Your task to perform on an android device: Search for alienware aurora on newegg, select the first entry, add it to the cart, then select checkout. Image 0: 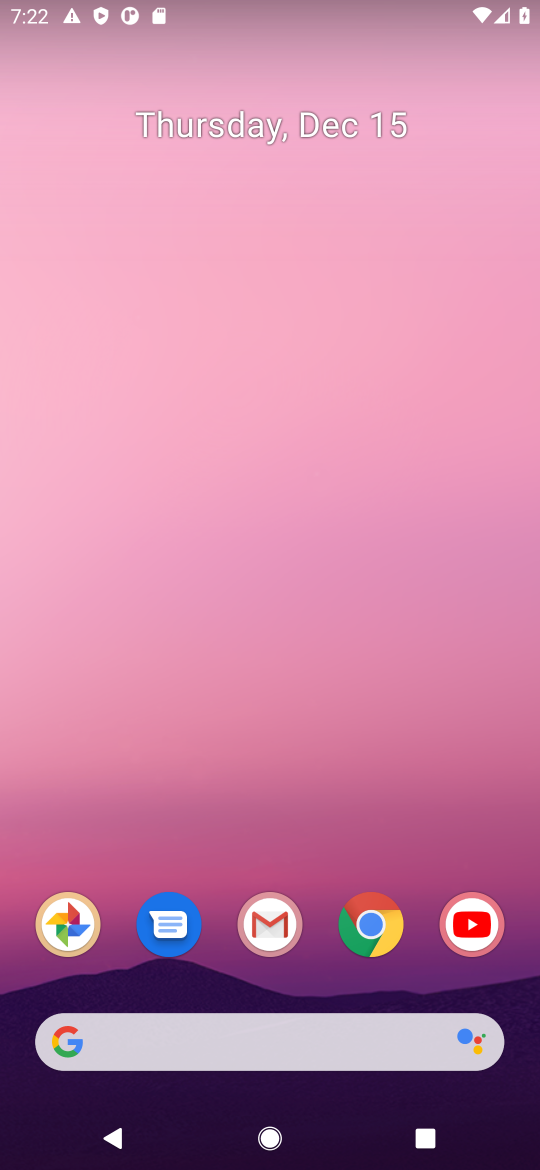
Step 0: click (353, 927)
Your task to perform on an android device: Search for alienware aurora on newegg, select the first entry, add it to the cart, then select checkout. Image 1: 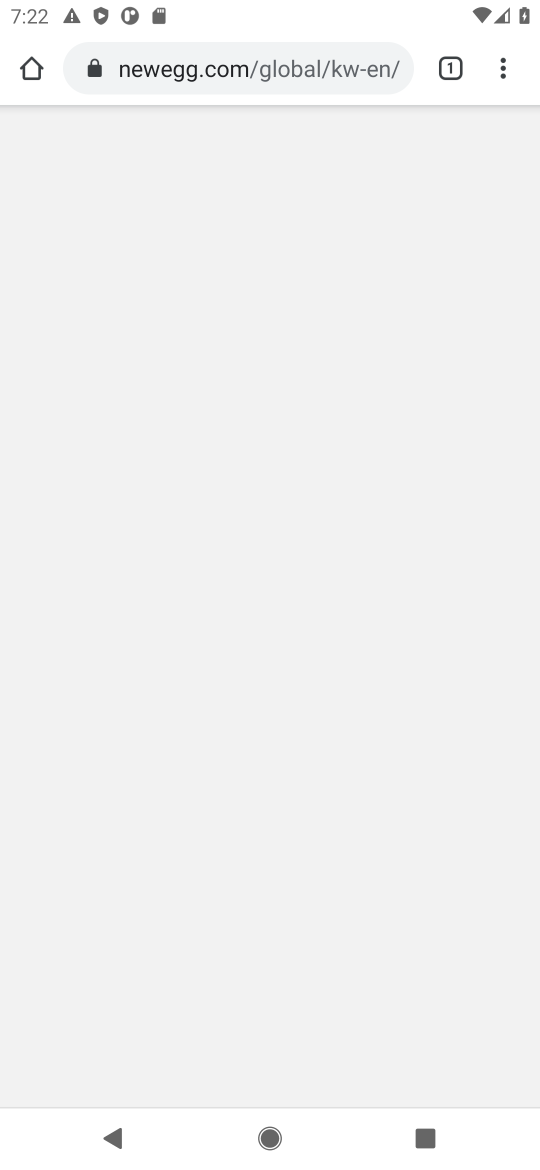
Step 1: click (358, 923)
Your task to perform on an android device: Search for alienware aurora on newegg, select the first entry, add it to the cart, then select checkout. Image 2: 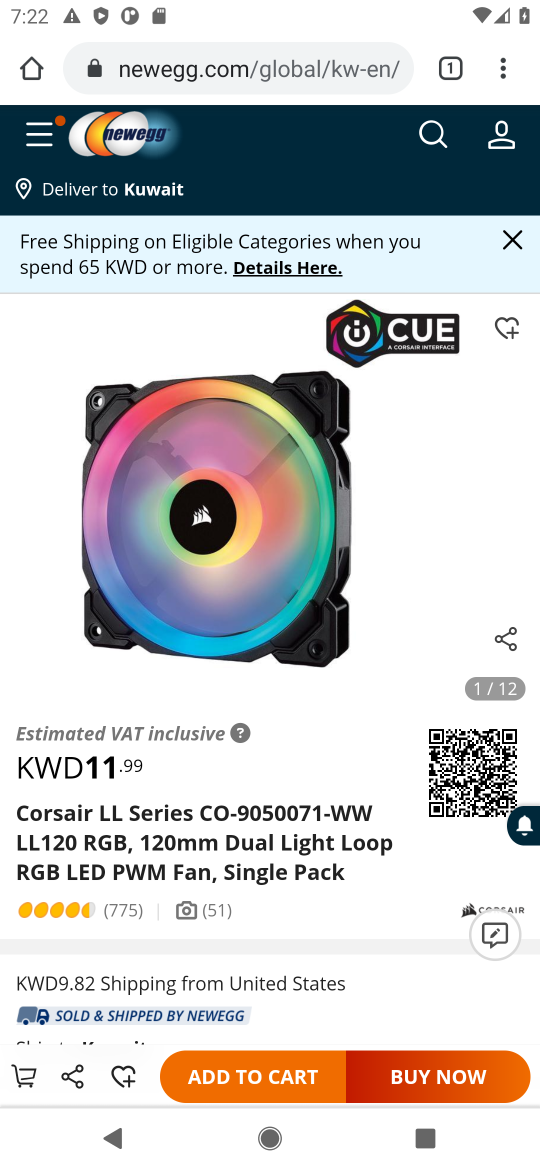
Step 2: click (436, 141)
Your task to perform on an android device: Search for alienware aurora on newegg, select the first entry, add it to the cart, then select checkout. Image 3: 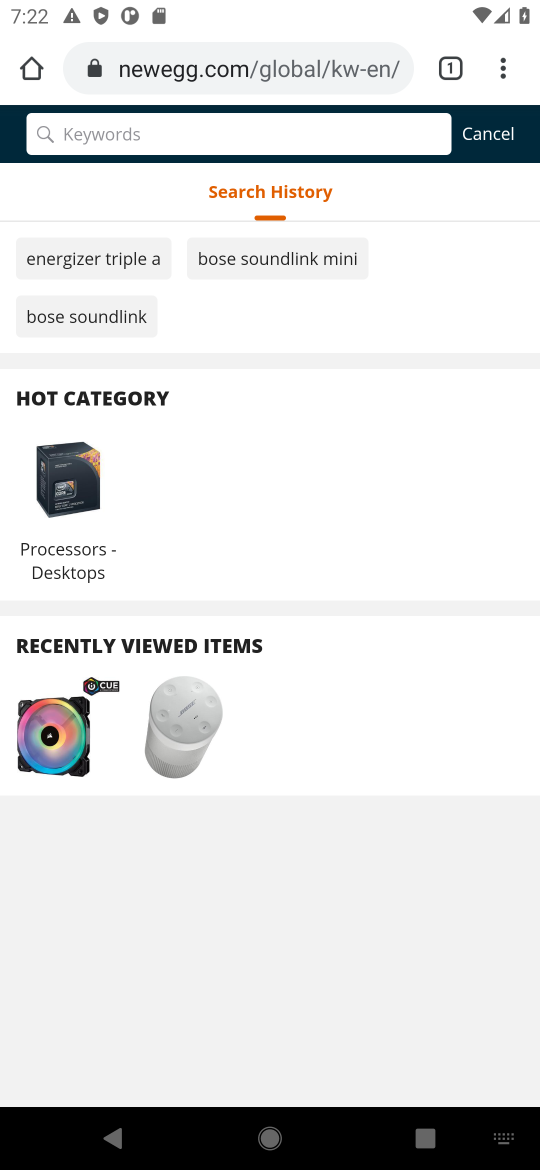
Step 3: type "alienware aurora"
Your task to perform on an android device: Search for alienware aurora on newegg, select the first entry, add it to the cart, then select checkout. Image 4: 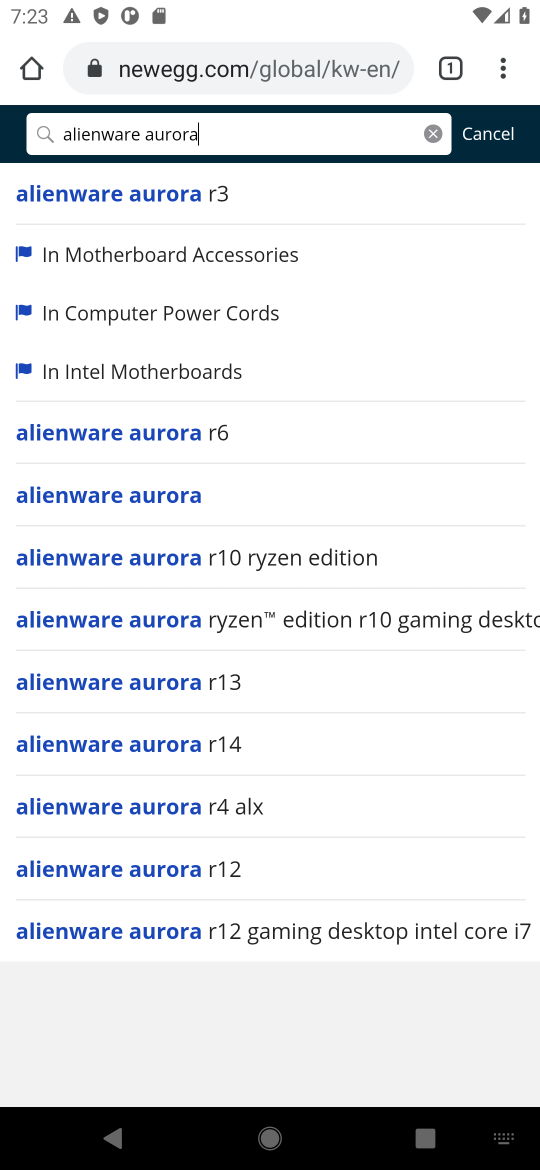
Step 4: click (257, 475)
Your task to perform on an android device: Search for alienware aurora on newegg, select the first entry, add it to the cart, then select checkout. Image 5: 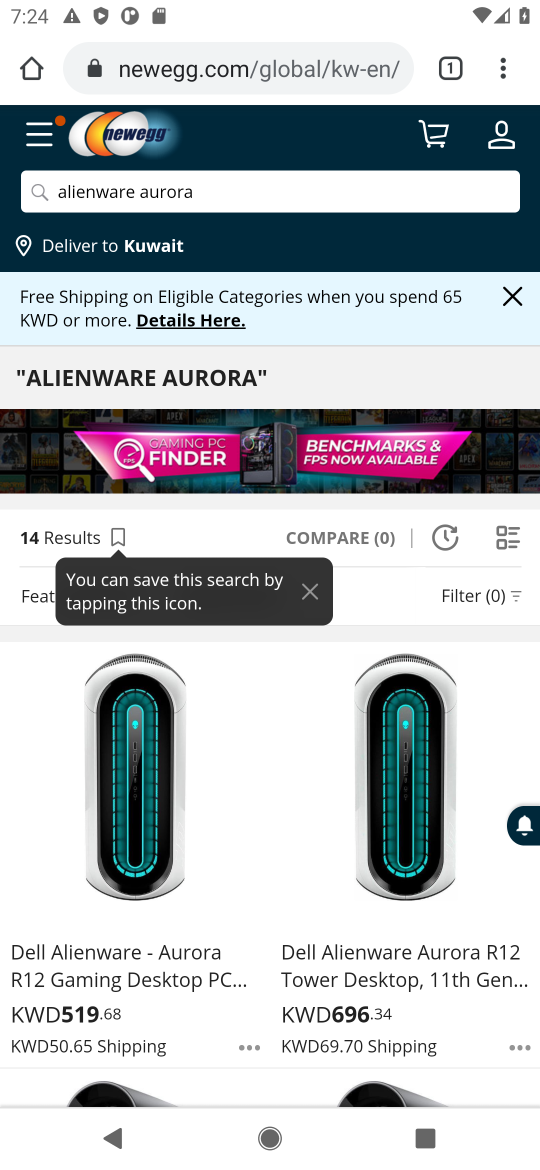
Step 5: click (185, 987)
Your task to perform on an android device: Search for alienware aurora on newegg, select the first entry, add it to the cart, then select checkout. Image 6: 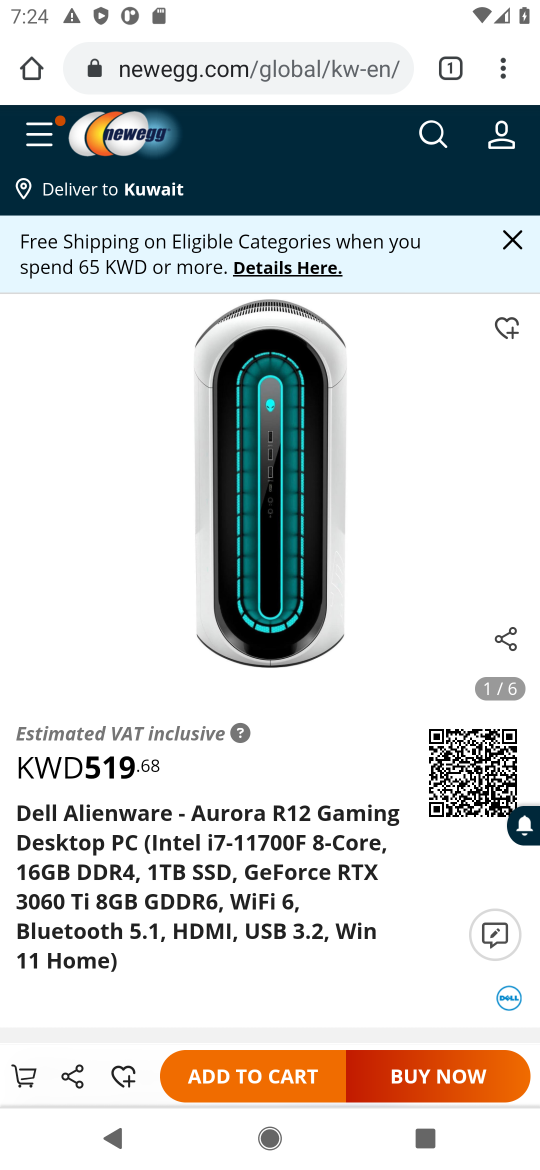
Step 6: click (173, 1070)
Your task to perform on an android device: Search for alienware aurora on newegg, select the first entry, add it to the cart, then select checkout. Image 7: 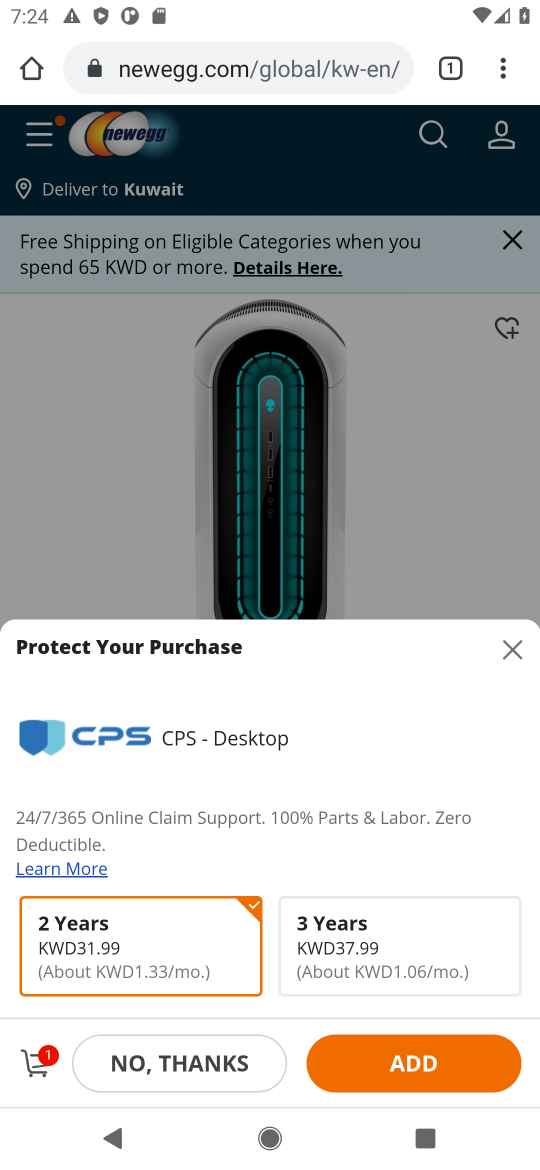
Step 7: click (36, 1069)
Your task to perform on an android device: Search for alienware aurora on newegg, select the first entry, add it to the cart, then select checkout. Image 8: 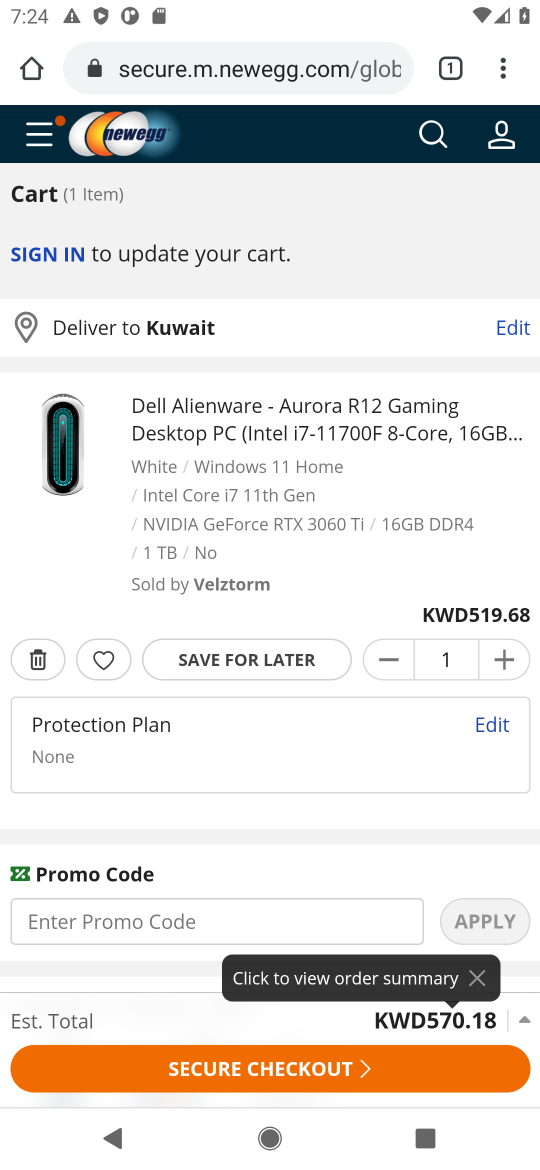
Step 8: click (227, 1063)
Your task to perform on an android device: Search for alienware aurora on newegg, select the first entry, add it to the cart, then select checkout. Image 9: 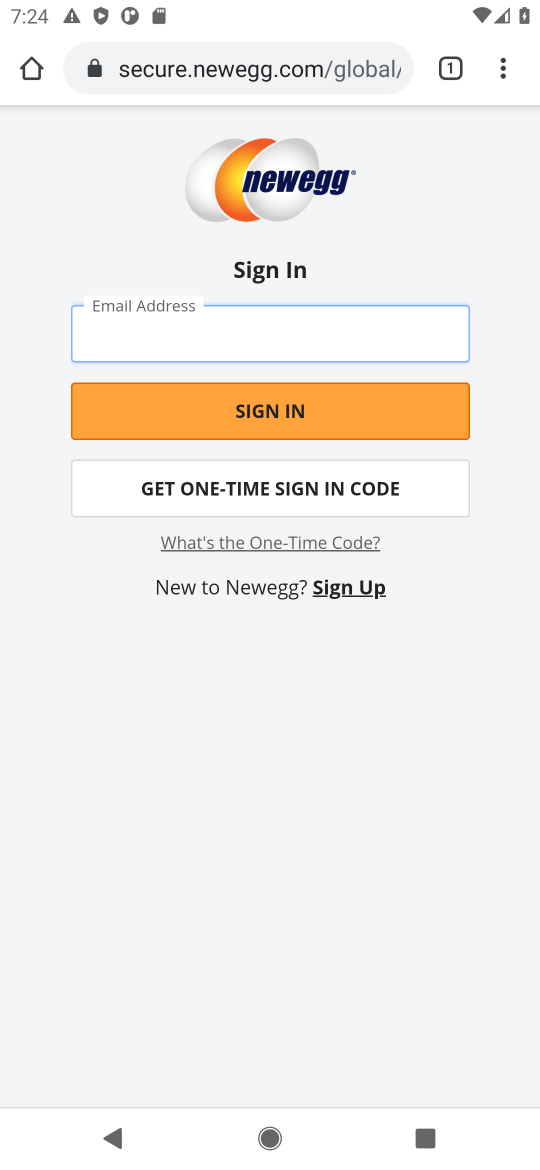
Step 9: task complete